Your task to perform on an android device: Go to Reddit.com Image 0: 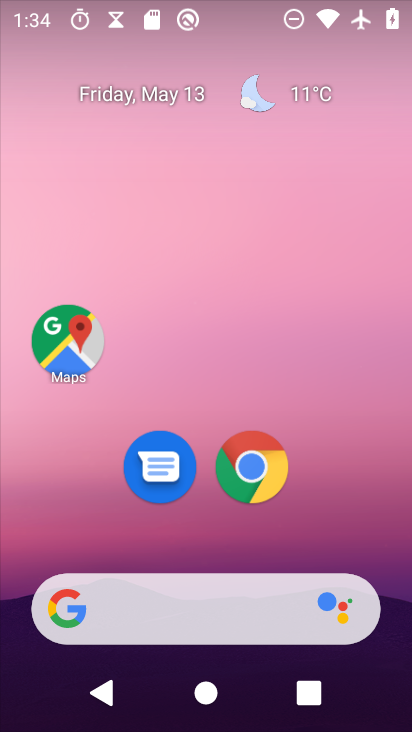
Step 0: click (258, 466)
Your task to perform on an android device: Go to Reddit.com Image 1: 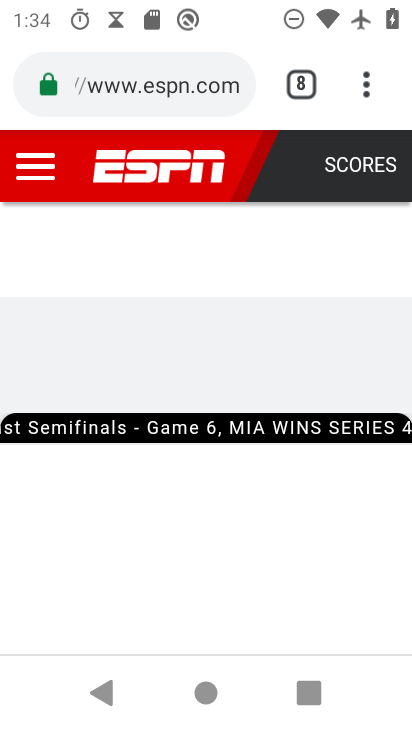
Step 1: click (304, 82)
Your task to perform on an android device: Go to Reddit.com Image 2: 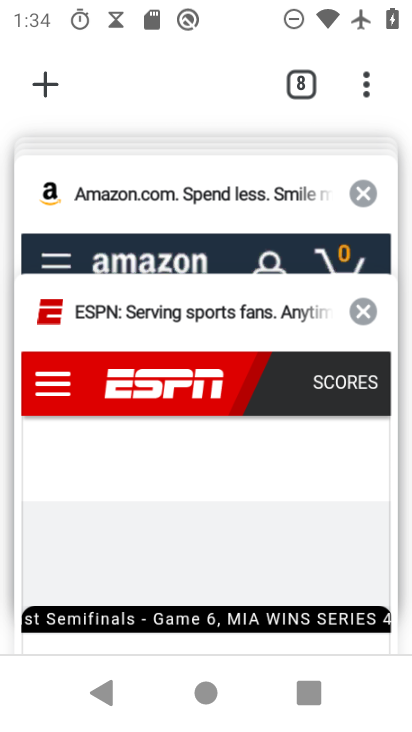
Step 2: click (38, 81)
Your task to perform on an android device: Go to Reddit.com Image 3: 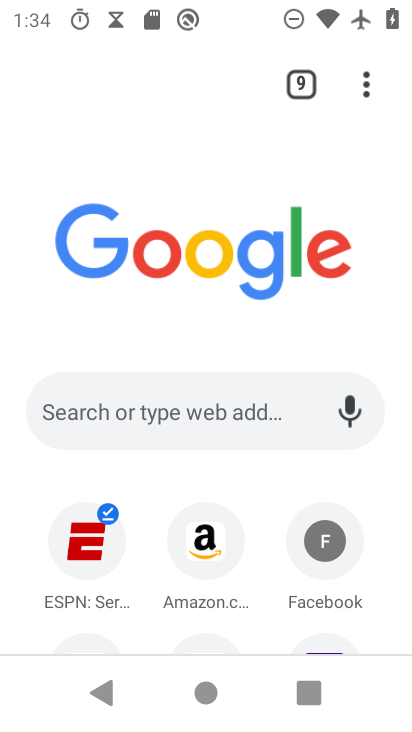
Step 3: click (144, 413)
Your task to perform on an android device: Go to Reddit.com Image 4: 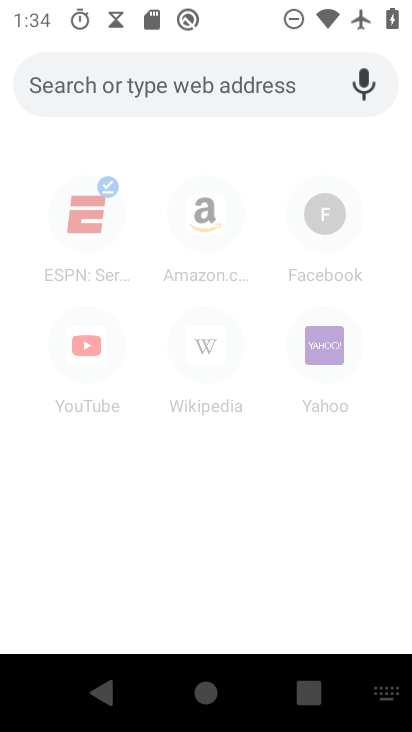
Step 4: type "Reddit.com"
Your task to perform on an android device: Go to Reddit.com Image 5: 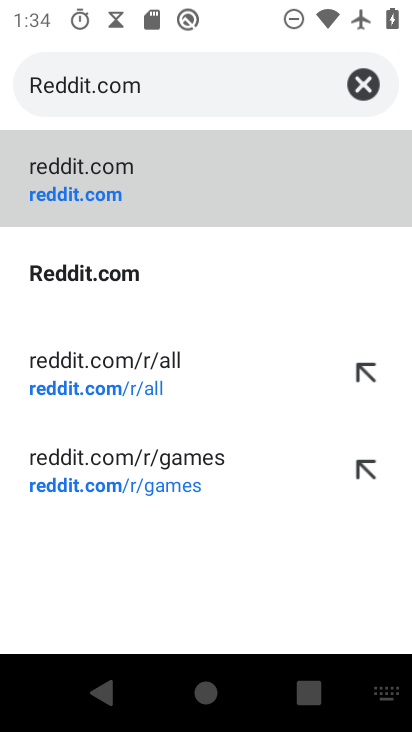
Step 5: click (97, 190)
Your task to perform on an android device: Go to Reddit.com Image 6: 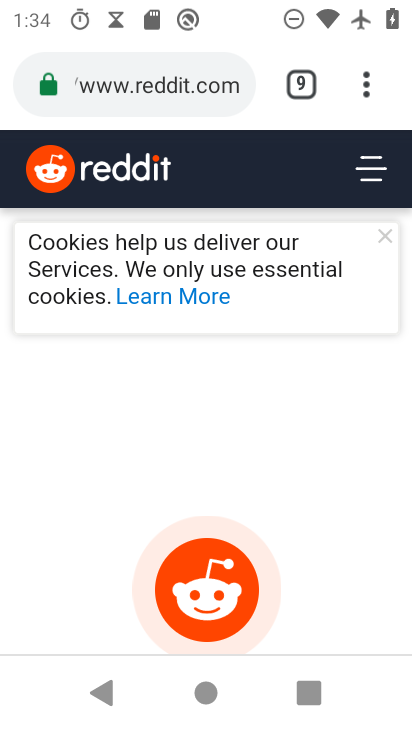
Step 6: task complete